Your task to perform on an android device: Open sound settings Image 0: 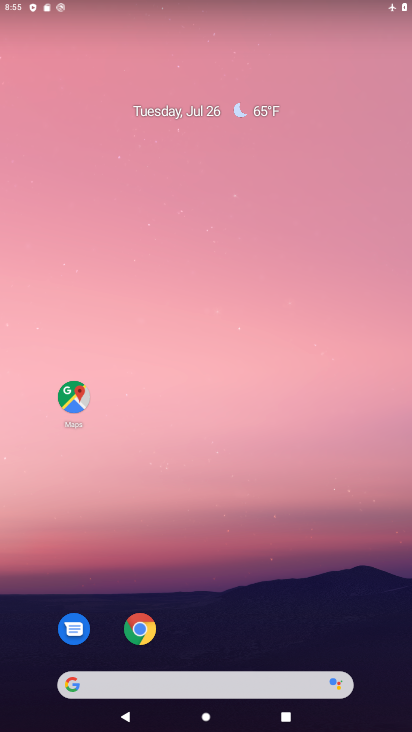
Step 0: drag from (323, 621) to (229, 88)
Your task to perform on an android device: Open sound settings Image 1: 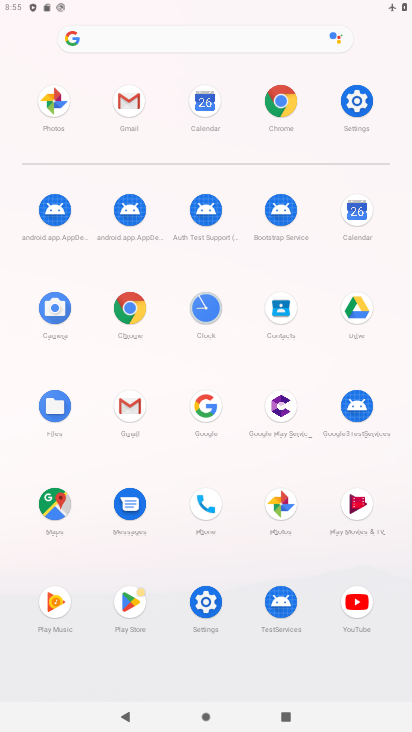
Step 1: click (357, 98)
Your task to perform on an android device: Open sound settings Image 2: 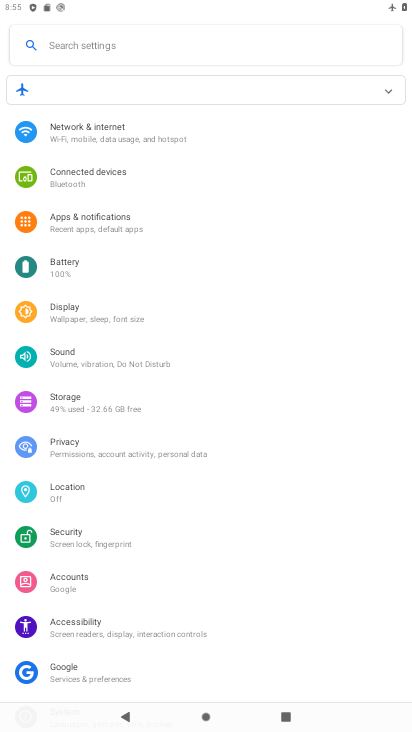
Step 2: click (148, 364)
Your task to perform on an android device: Open sound settings Image 3: 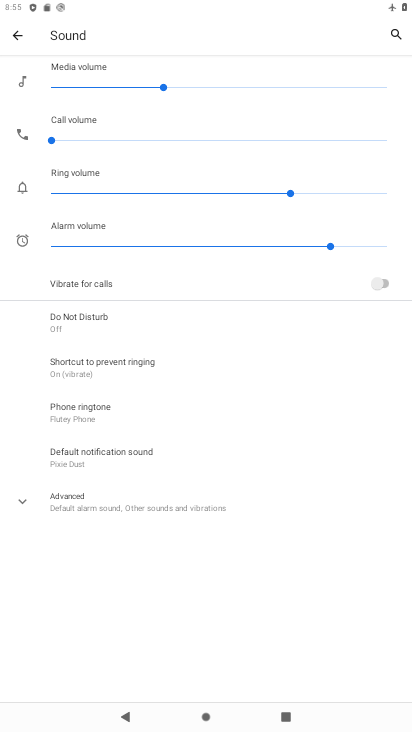
Step 3: task complete